Your task to perform on an android device: What's the weather going to be tomorrow? Image 0: 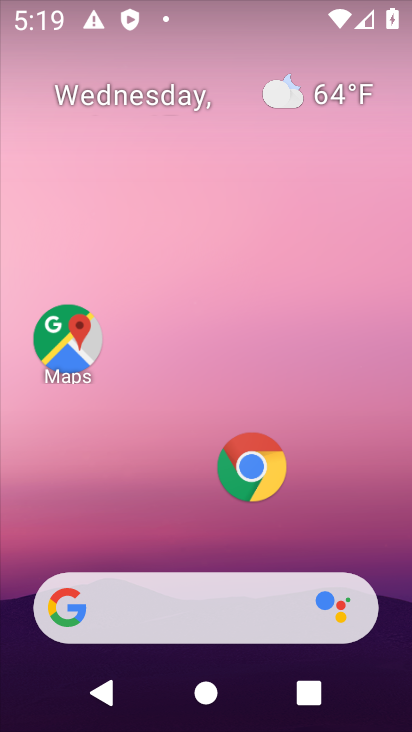
Step 0: click (137, 615)
Your task to perform on an android device: What's the weather going to be tomorrow? Image 1: 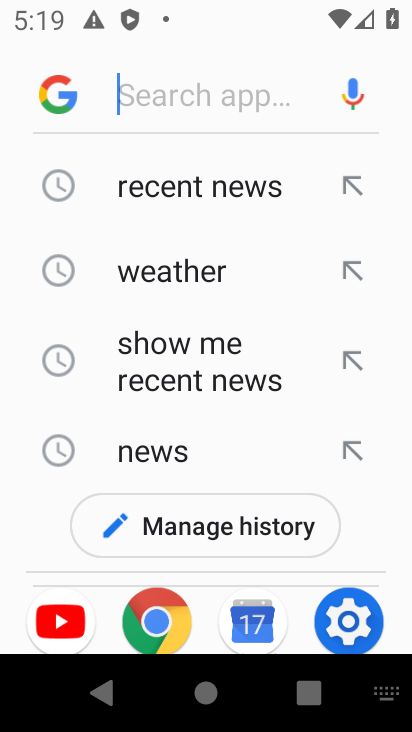
Step 1: type "What's the weather going to be tomorrow?"
Your task to perform on an android device: What's the weather going to be tomorrow? Image 2: 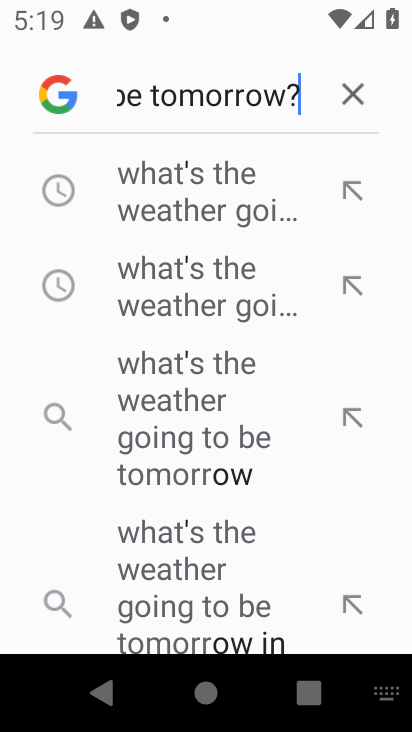
Step 2: press enter
Your task to perform on an android device: What's the weather going to be tomorrow? Image 3: 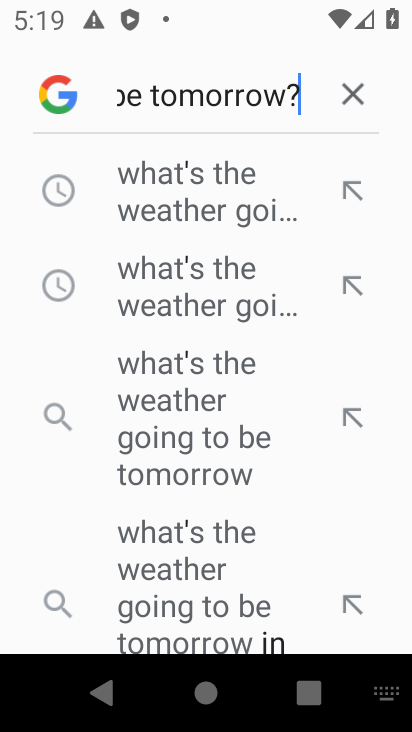
Step 3: type ""
Your task to perform on an android device: What's the weather going to be tomorrow? Image 4: 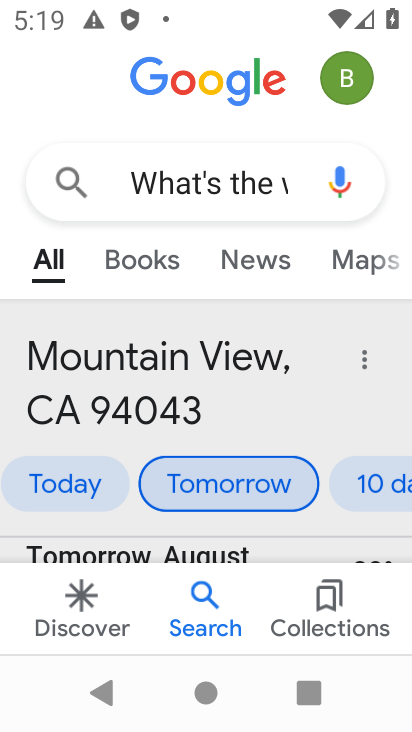
Step 4: task complete